Your task to perform on an android device: search for starred emails in the gmail app Image 0: 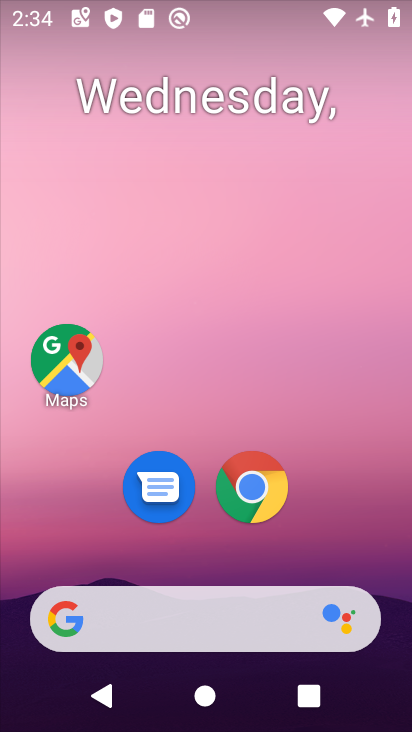
Step 0: drag from (342, 556) to (398, 0)
Your task to perform on an android device: search for starred emails in the gmail app Image 1: 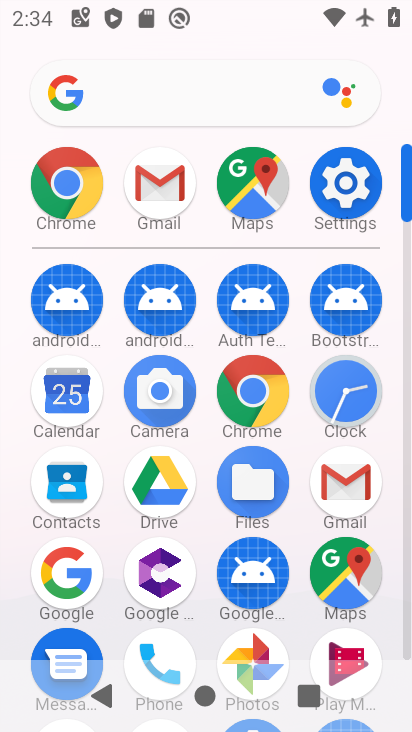
Step 1: click (357, 491)
Your task to perform on an android device: search for starred emails in the gmail app Image 2: 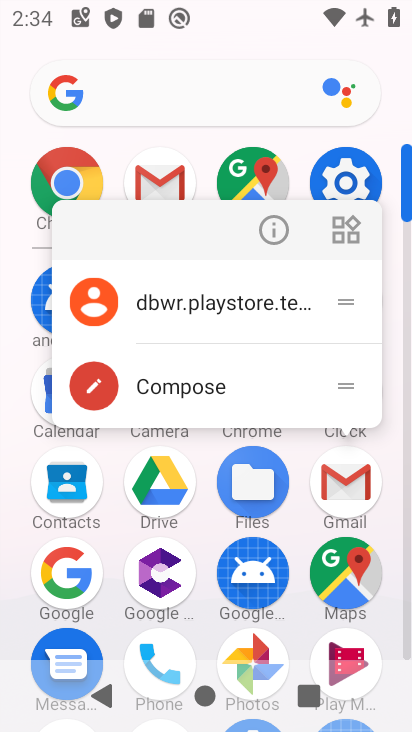
Step 2: click (357, 491)
Your task to perform on an android device: search for starred emails in the gmail app Image 3: 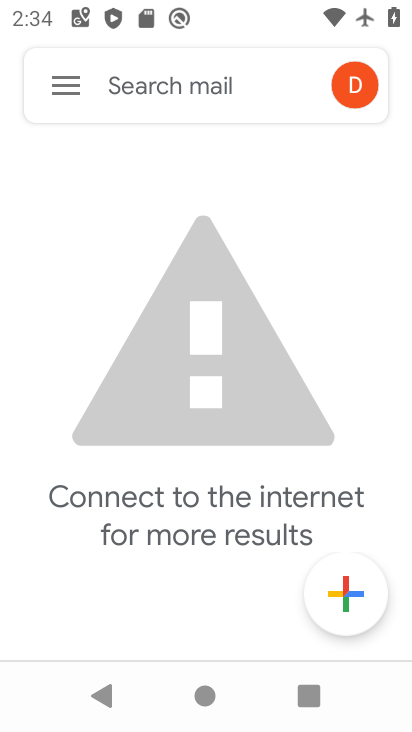
Step 3: click (56, 81)
Your task to perform on an android device: search for starred emails in the gmail app Image 4: 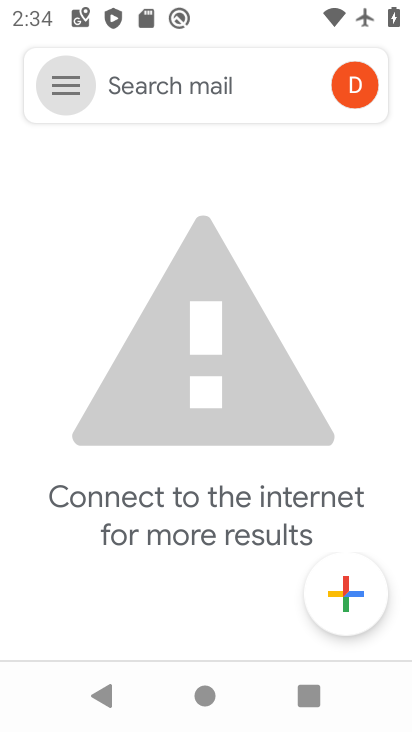
Step 4: click (56, 81)
Your task to perform on an android device: search for starred emails in the gmail app Image 5: 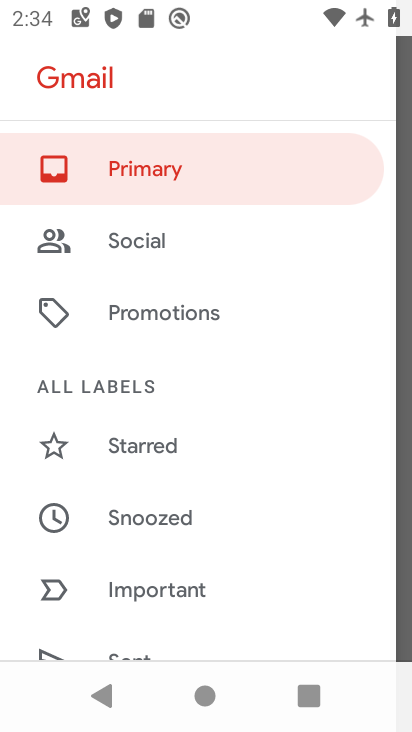
Step 5: click (81, 445)
Your task to perform on an android device: search for starred emails in the gmail app Image 6: 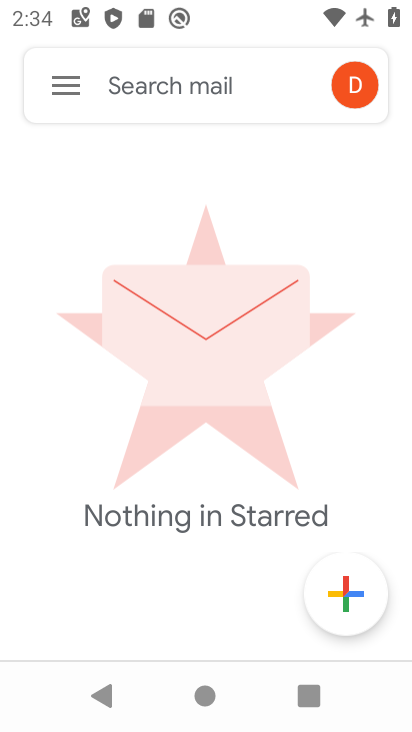
Step 6: task complete